Your task to perform on an android device: find photos in the google photos app Image 0: 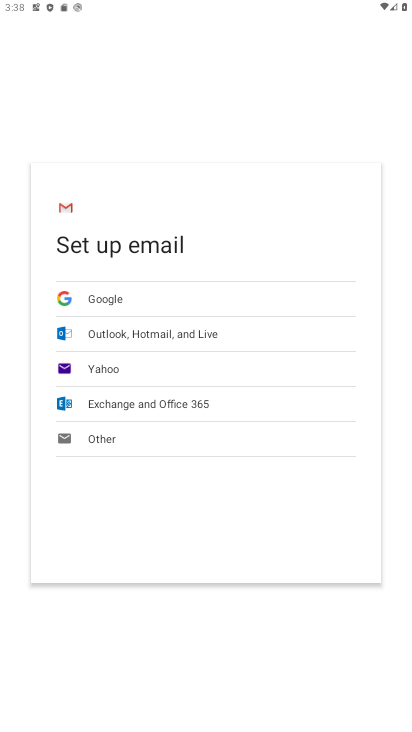
Step 0: press home button
Your task to perform on an android device: find photos in the google photos app Image 1: 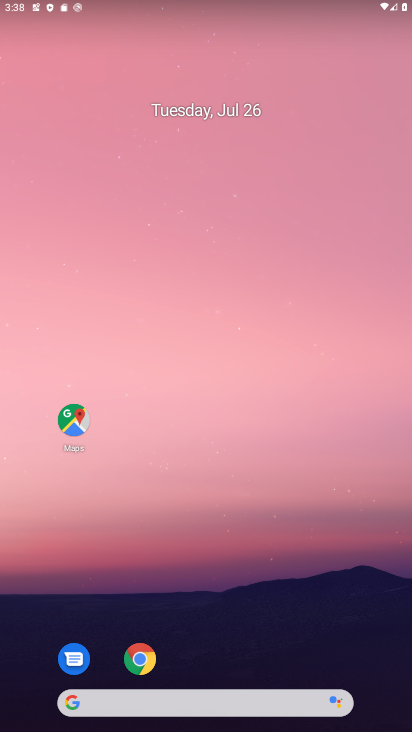
Step 1: drag from (231, 631) to (214, 30)
Your task to perform on an android device: find photos in the google photos app Image 2: 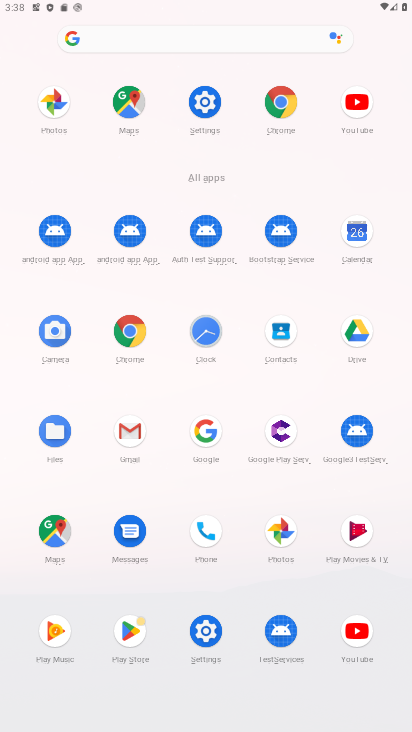
Step 2: click (278, 541)
Your task to perform on an android device: find photos in the google photos app Image 3: 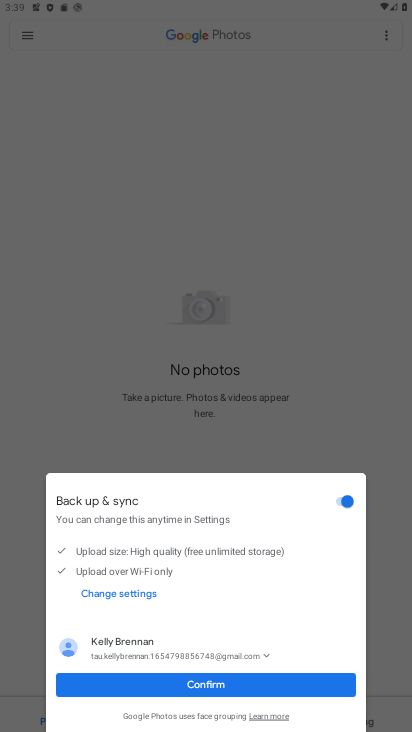
Step 3: click (267, 676)
Your task to perform on an android device: find photos in the google photos app Image 4: 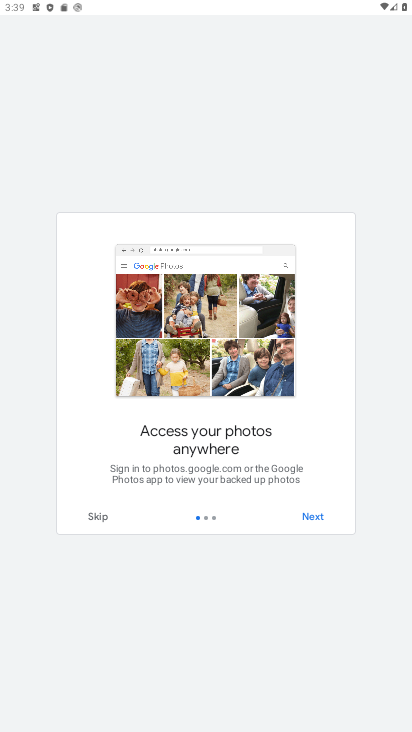
Step 4: click (93, 520)
Your task to perform on an android device: find photos in the google photos app Image 5: 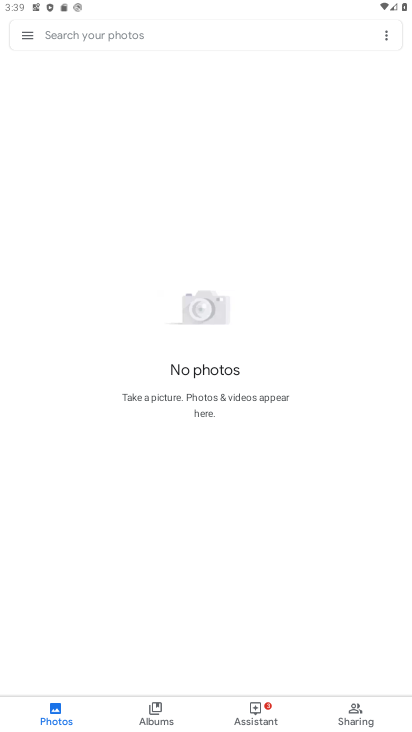
Step 5: task complete